Your task to perform on an android device: Open Youtube and go to the subscriptions tab Image 0: 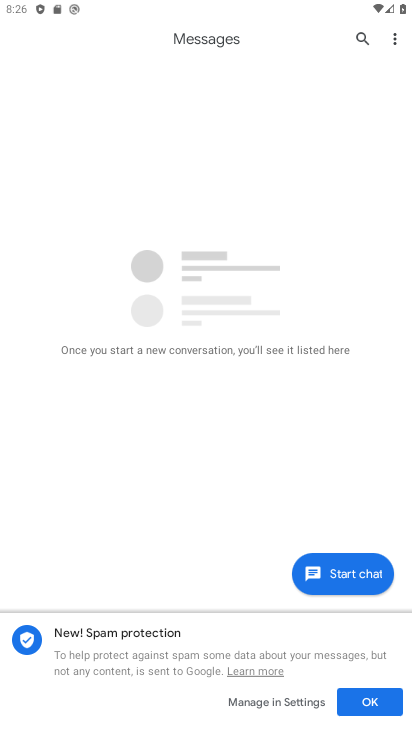
Step 0: press home button
Your task to perform on an android device: Open Youtube and go to the subscriptions tab Image 1: 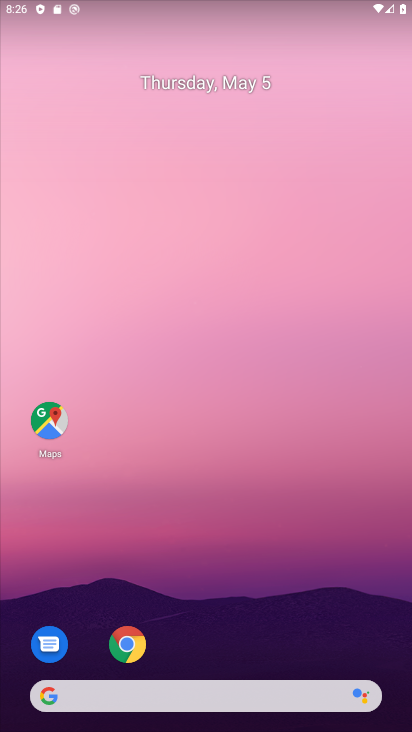
Step 1: drag from (321, 589) to (278, 125)
Your task to perform on an android device: Open Youtube and go to the subscriptions tab Image 2: 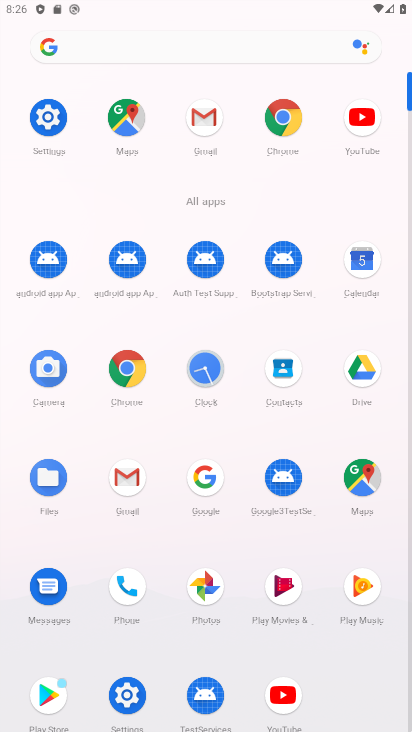
Step 2: click (347, 134)
Your task to perform on an android device: Open Youtube and go to the subscriptions tab Image 3: 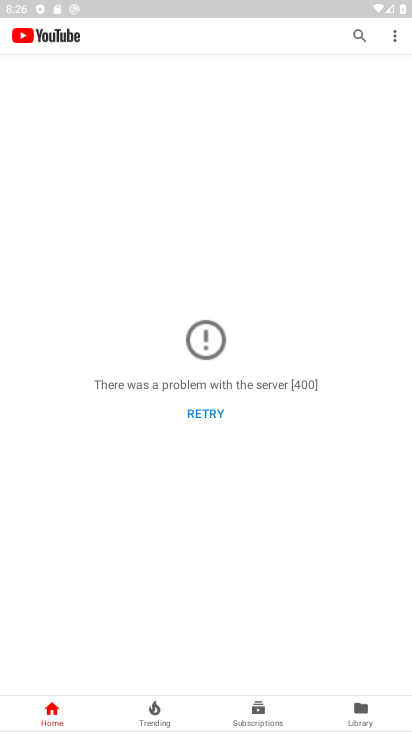
Step 3: click (242, 715)
Your task to perform on an android device: Open Youtube and go to the subscriptions tab Image 4: 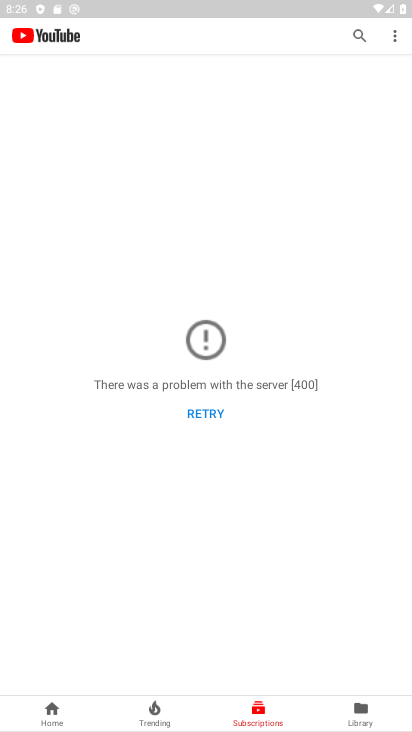
Step 4: task complete